Your task to perform on an android device: turn on wifi Image 0: 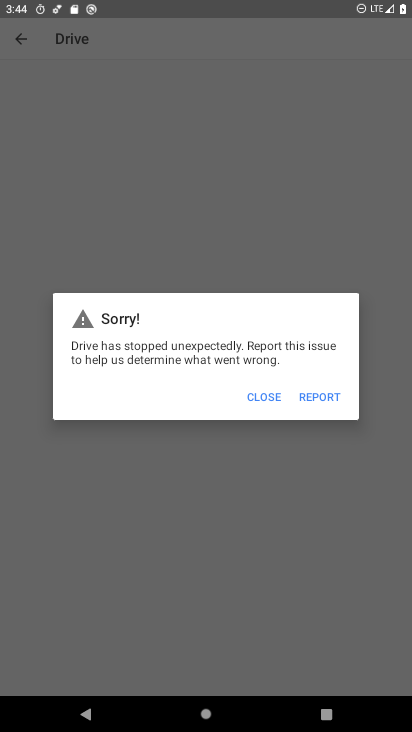
Step 0: press home button
Your task to perform on an android device: turn on wifi Image 1: 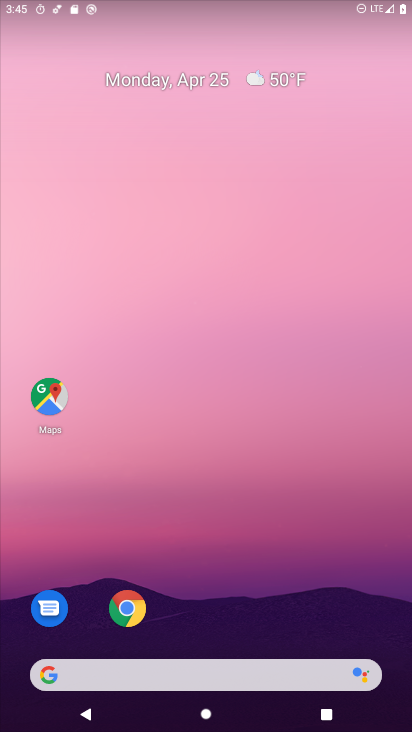
Step 1: drag from (207, 525) to (207, 300)
Your task to perform on an android device: turn on wifi Image 2: 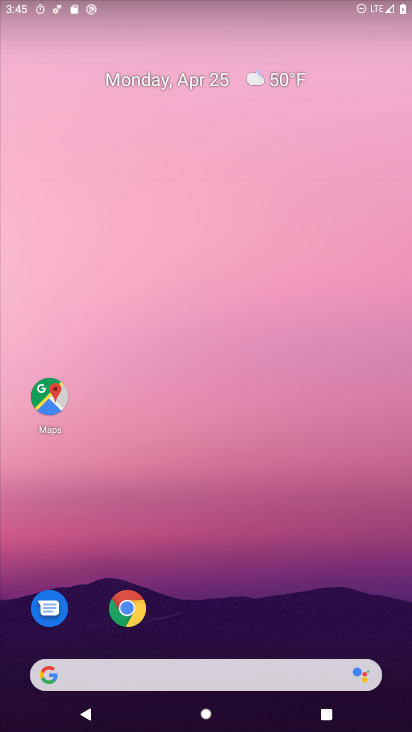
Step 2: drag from (206, 629) to (200, 208)
Your task to perform on an android device: turn on wifi Image 3: 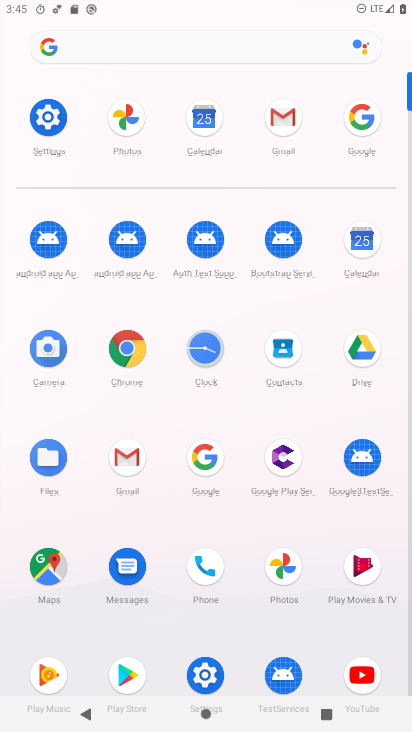
Step 3: click (57, 122)
Your task to perform on an android device: turn on wifi Image 4: 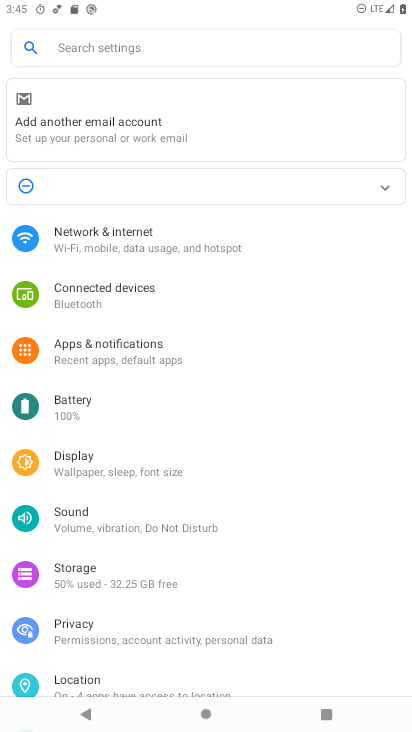
Step 4: click (114, 240)
Your task to perform on an android device: turn on wifi Image 5: 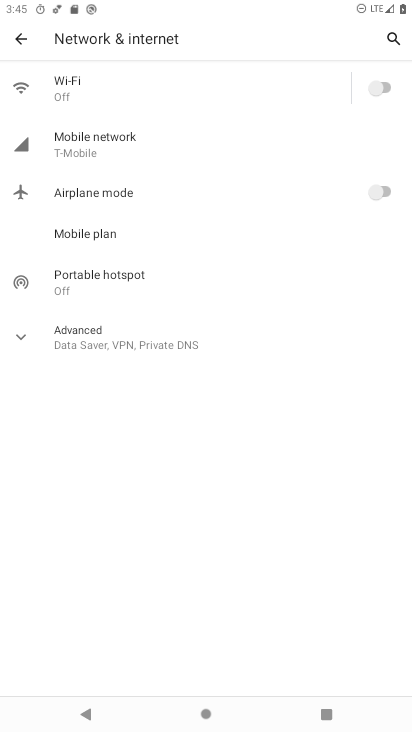
Step 5: click (387, 88)
Your task to perform on an android device: turn on wifi Image 6: 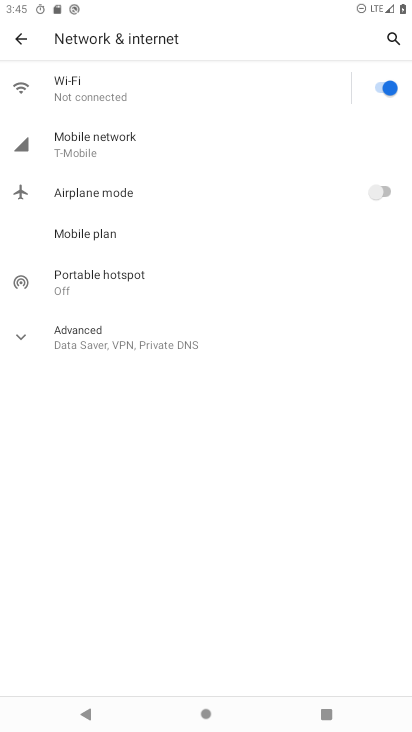
Step 6: task complete